Your task to perform on an android device: Open Google Maps Image 0: 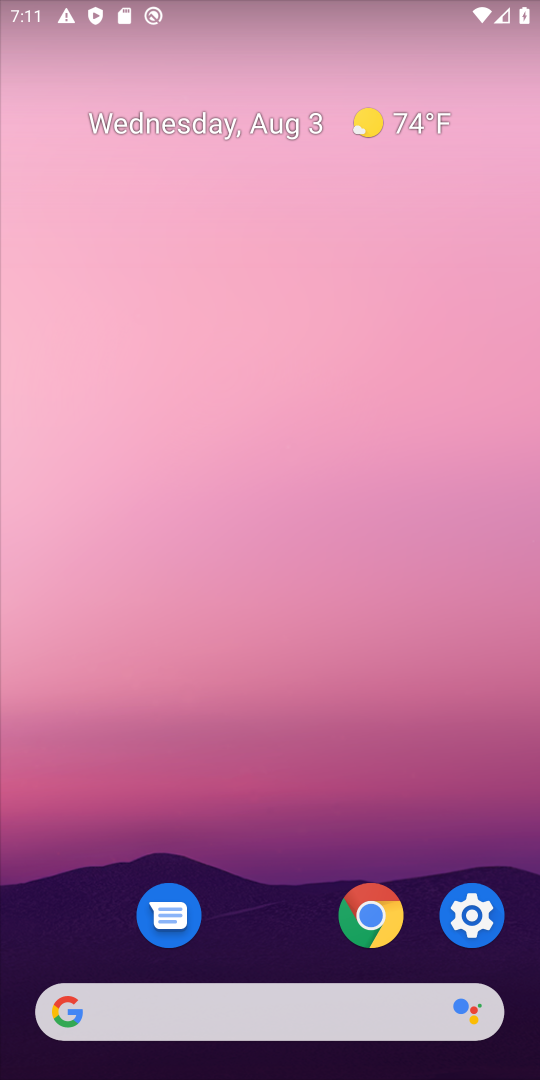
Step 0: drag from (316, 1033) to (173, 253)
Your task to perform on an android device: Open Google Maps Image 1: 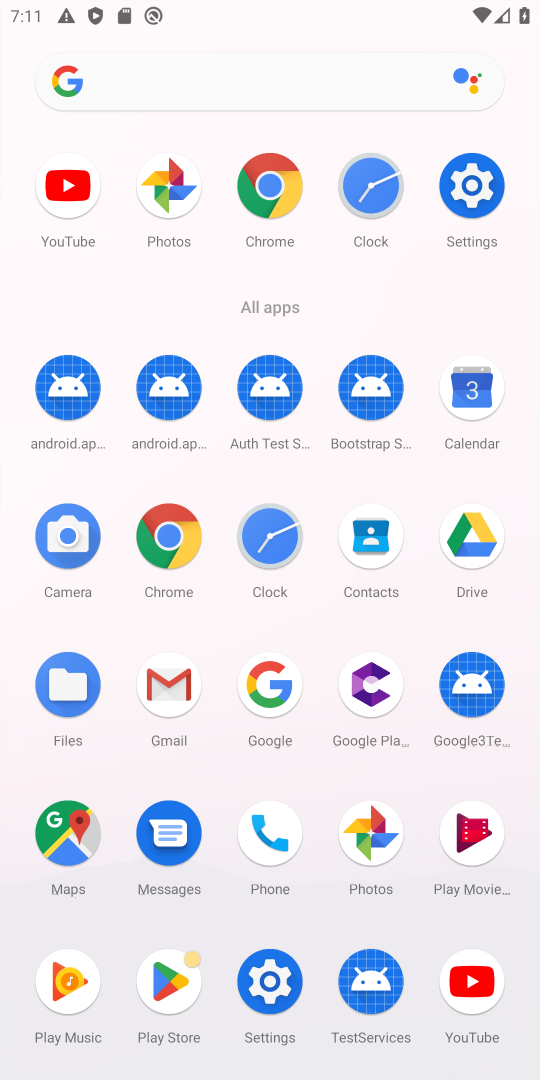
Step 1: click (80, 812)
Your task to perform on an android device: Open Google Maps Image 2: 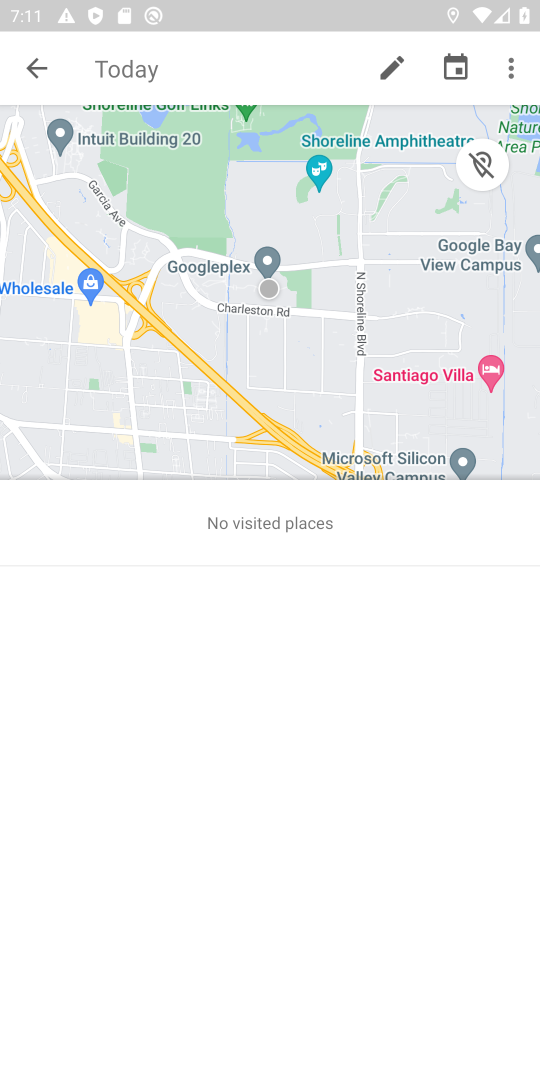
Step 2: click (42, 66)
Your task to perform on an android device: Open Google Maps Image 3: 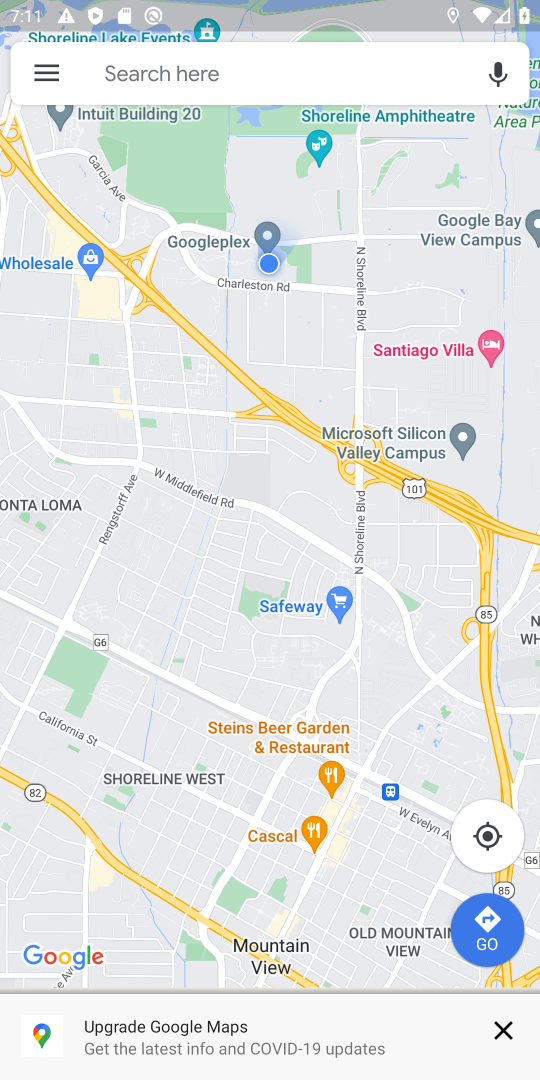
Step 3: click (482, 844)
Your task to perform on an android device: Open Google Maps Image 4: 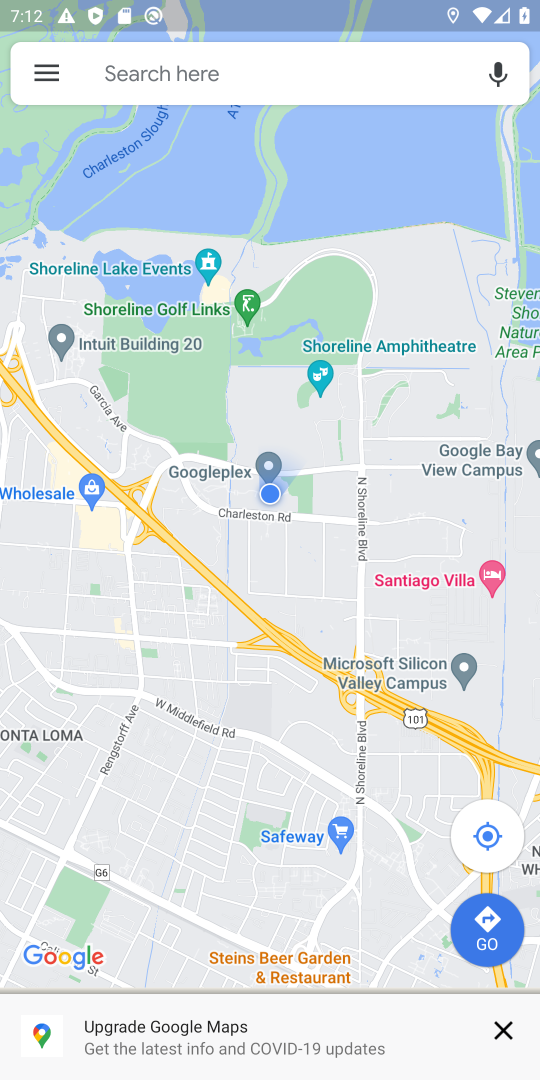
Step 4: task complete